Your task to perform on an android device: turn off improve location accuracy Image 0: 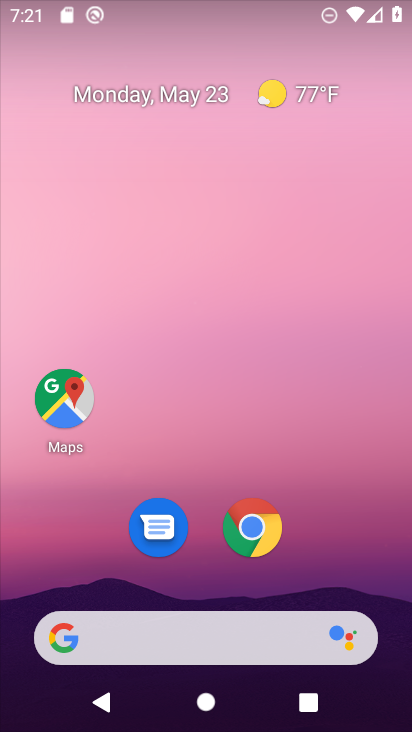
Step 0: drag from (294, 652) to (194, 59)
Your task to perform on an android device: turn off improve location accuracy Image 1: 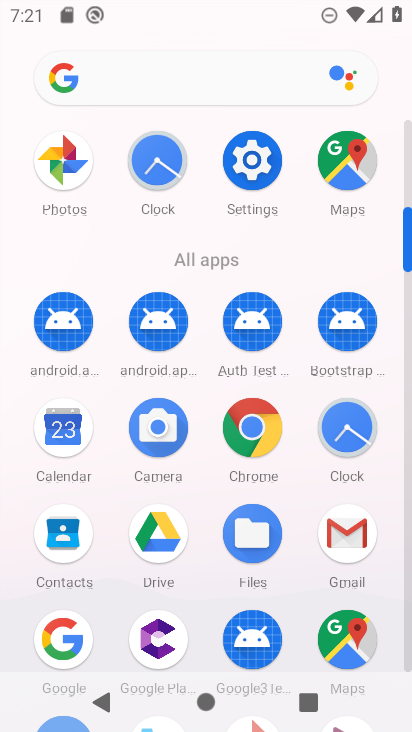
Step 1: click (252, 171)
Your task to perform on an android device: turn off improve location accuracy Image 2: 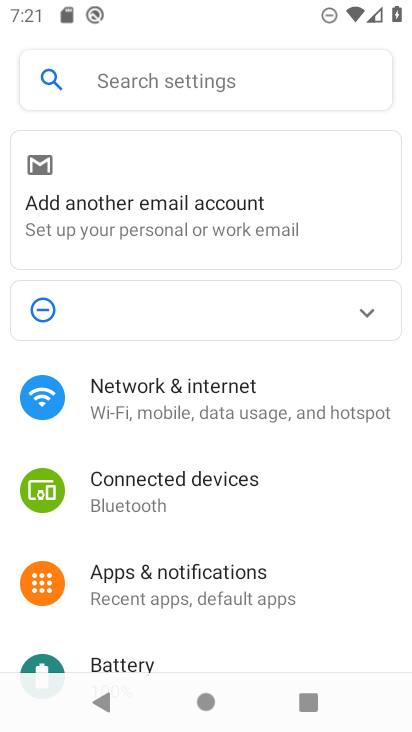
Step 2: click (153, 78)
Your task to perform on an android device: turn off improve location accuracy Image 3: 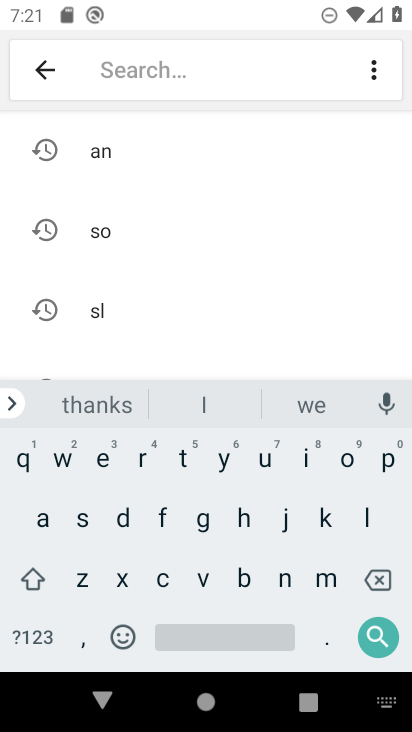
Step 3: click (365, 528)
Your task to perform on an android device: turn off improve location accuracy Image 4: 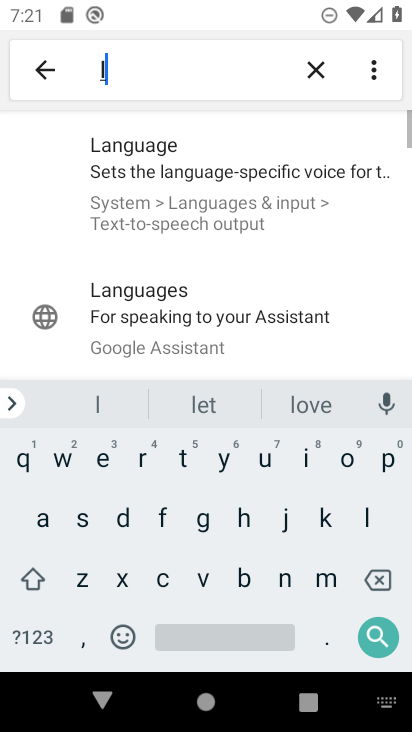
Step 4: click (336, 460)
Your task to perform on an android device: turn off improve location accuracy Image 5: 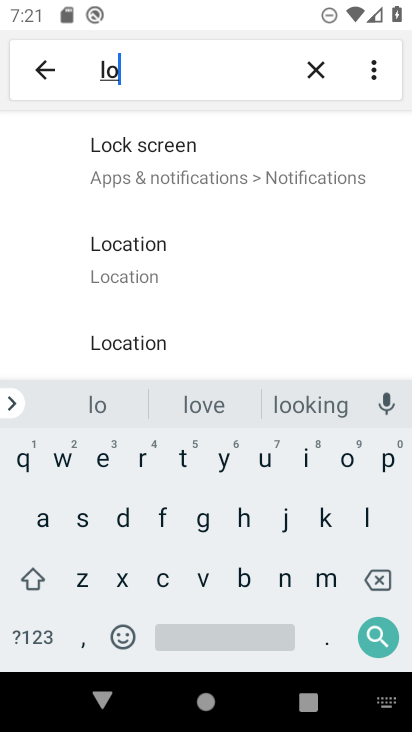
Step 5: click (165, 268)
Your task to perform on an android device: turn off improve location accuracy Image 6: 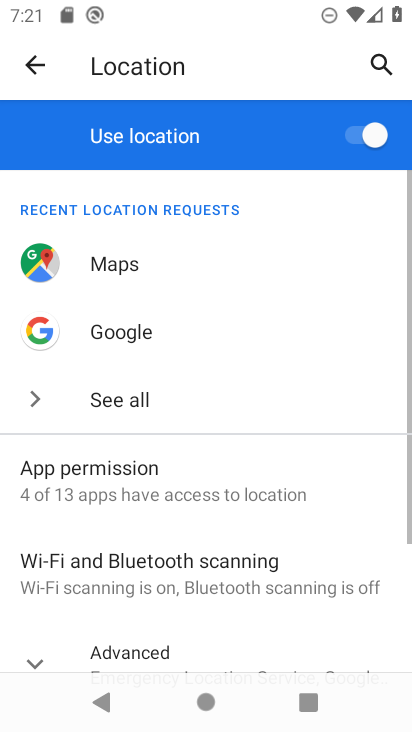
Step 6: drag from (120, 604) to (152, 486)
Your task to perform on an android device: turn off improve location accuracy Image 7: 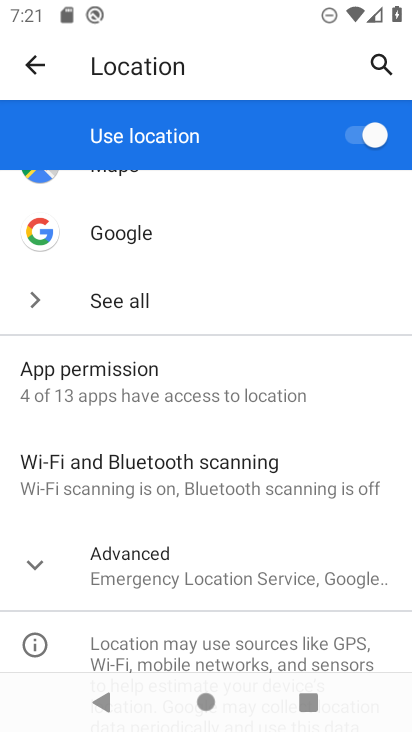
Step 7: click (56, 568)
Your task to perform on an android device: turn off improve location accuracy Image 8: 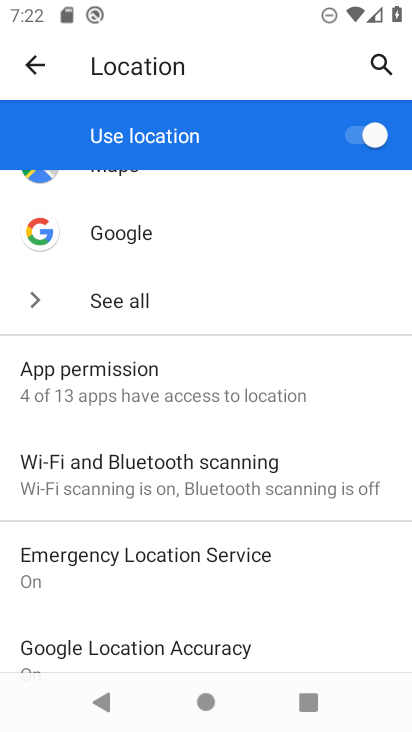
Step 8: click (125, 635)
Your task to perform on an android device: turn off improve location accuracy Image 9: 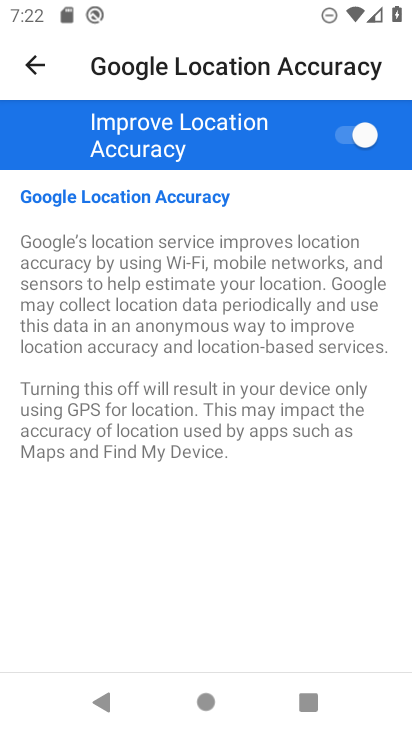
Step 9: click (348, 149)
Your task to perform on an android device: turn off improve location accuracy Image 10: 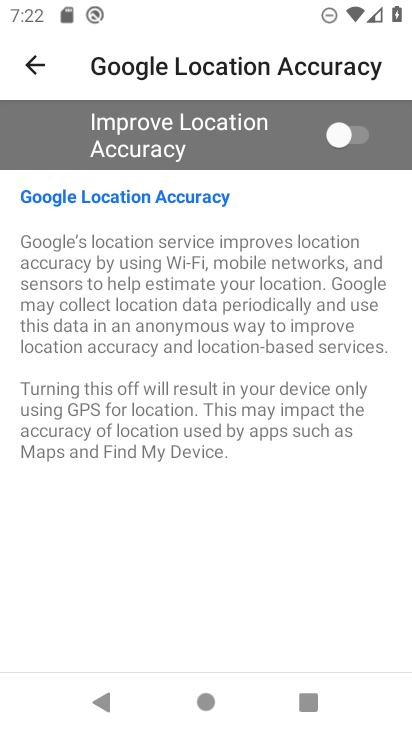
Step 10: task complete